Your task to perform on an android device: find which apps use the phone's location Image 0: 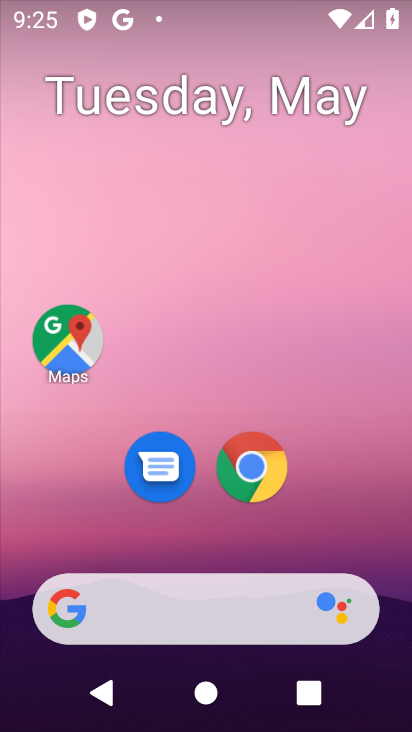
Step 0: drag from (404, 562) to (261, 11)
Your task to perform on an android device: find which apps use the phone's location Image 1: 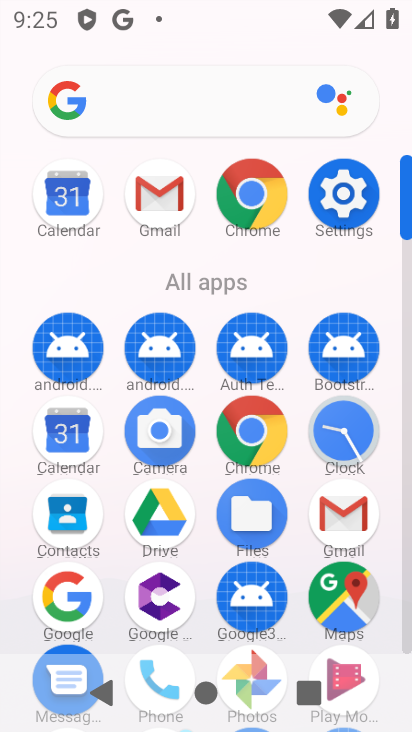
Step 1: drag from (9, 622) to (34, 201)
Your task to perform on an android device: find which apps use the phone's location Image 2: 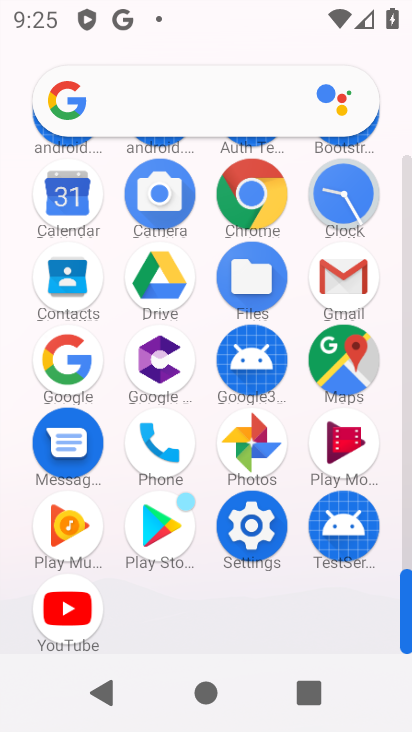
Step 2: click (254, 525)
Your task to perform on an android device: find which apps use the phone's location Image 3: 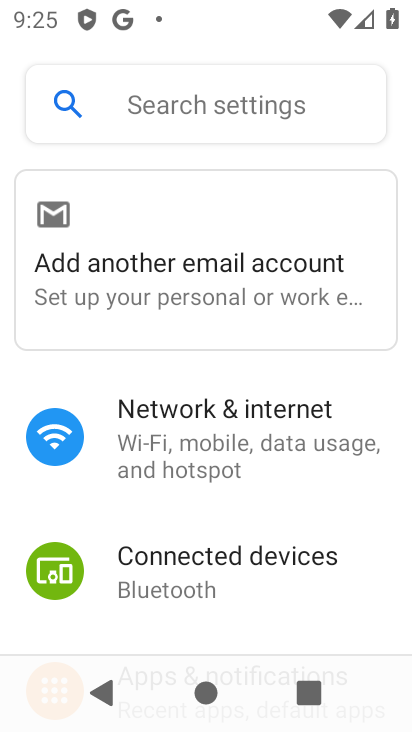
Step 3: drag from (305, 549) to (319, 161)
Your task to perform on an android device: find which apps use the phone's location Image 4: 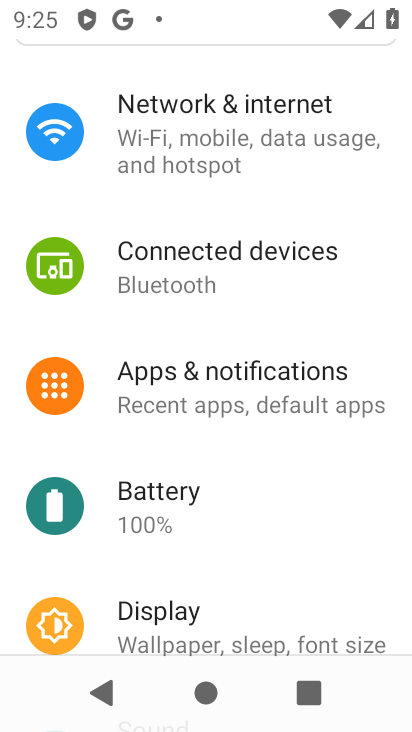
Step 4: drag from (293, 533) to (290, 170)
Your task to perform on an android device: find which apps use the phone's location Image 5: 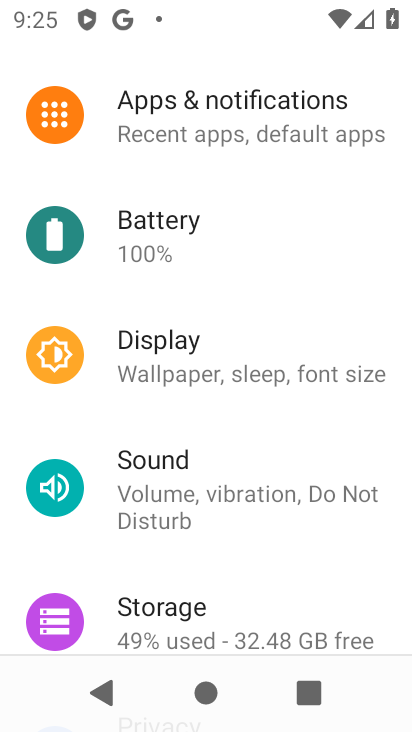
Step 5: drag from (280, 542) to (289, 153)
Your task to perform on an android device: find which apps use the phone's location Image 6: 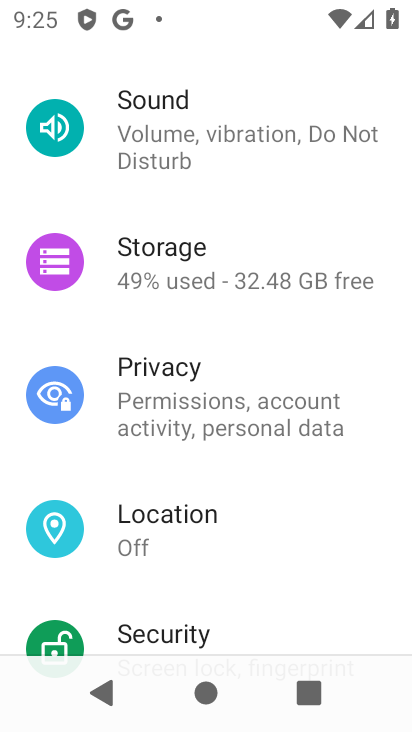
Step 6: drag from (256, 564) to (247, 164)
Your task to perform on an android device: find which apps use the phone's location Image 7: 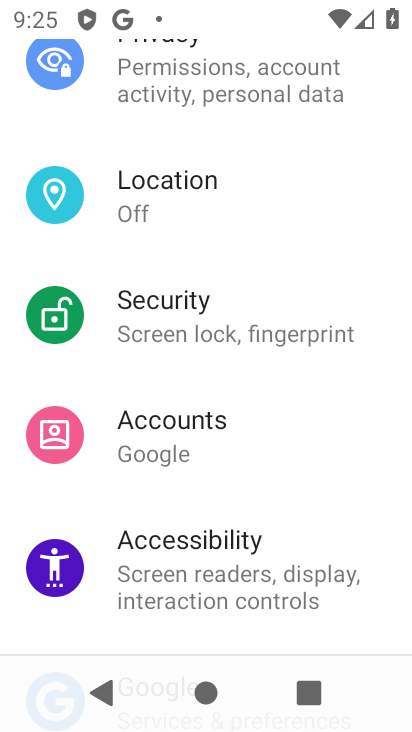
Step 7: drag from (251, 565) to (279, 115)
Your task to perform on an android device: find which apps use the phone's location Image 8: 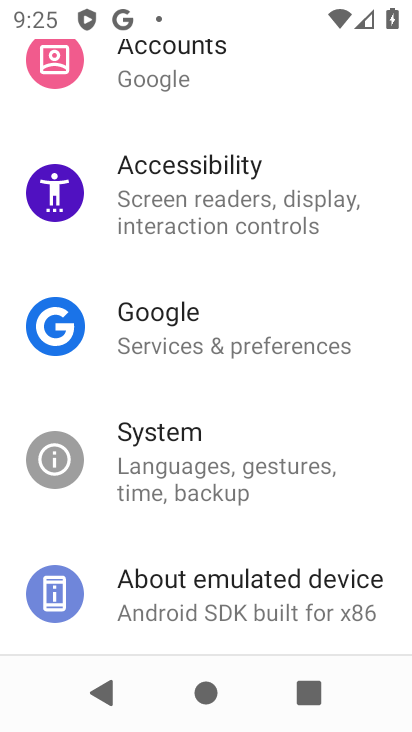
Step 8: drag from (247, 538) to (255, 155)
Your task to perform on an android device: find which apps use the phone's location Image 9: 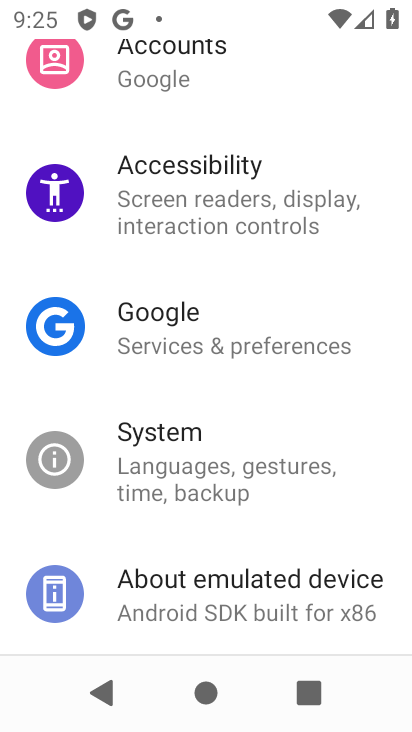
Step 9: drag from (294, 280) to (264, 598)
Your task to perform on an android device: find which apps use the phone's location Image 10: 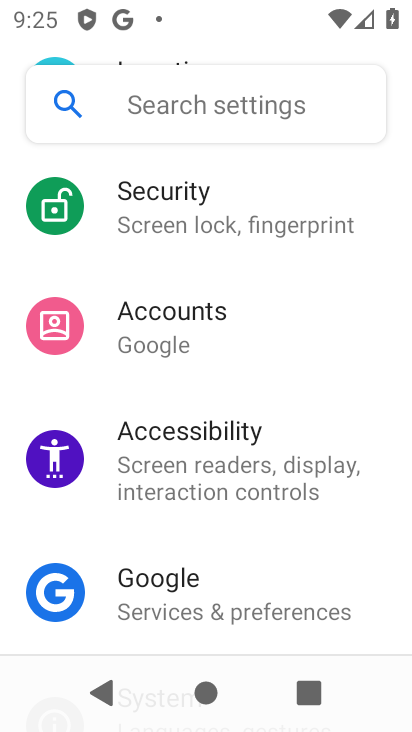
Step 10: drag from (287, 272) to (268, 588)
Your task to perform on an android device: find which apps use the phone's location Image 11: 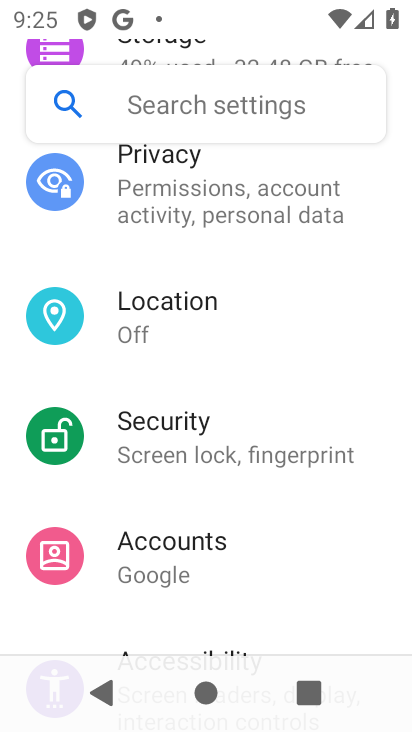
Step 11: drag from (275, 300) to (275, 583)
Your task to perform on an android device: find which apps use the phone's location Image 12: 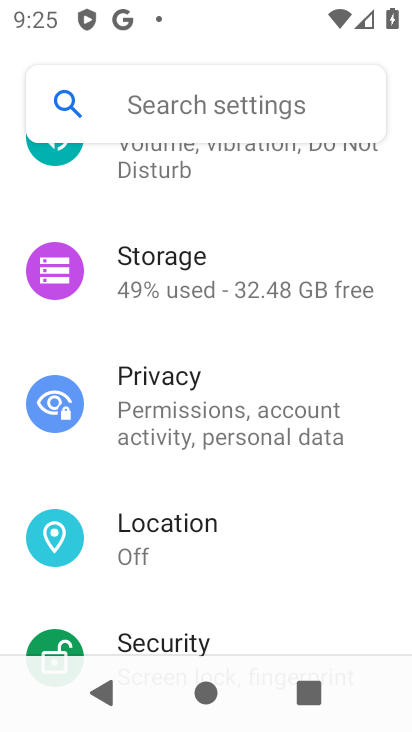
Step 12: drag from (274, 229) to (275, 615)
Your task to perform on an android device: find which apps use the phone's location Image 13: 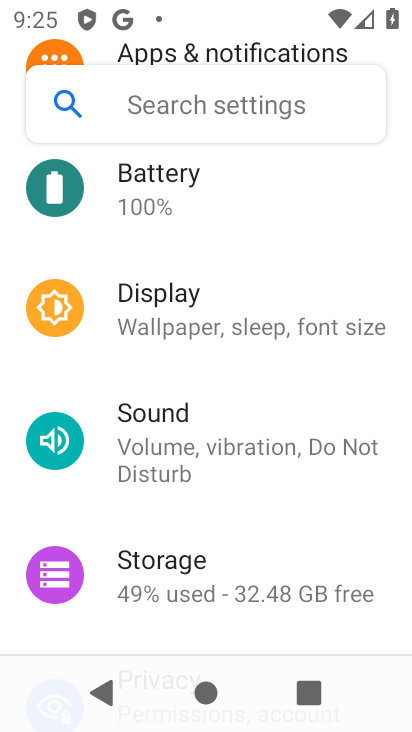
Step 13: drag from (286, 294) to (283, 584)
Your task to perform on an android device: find which apps use the phone's location Image 14: 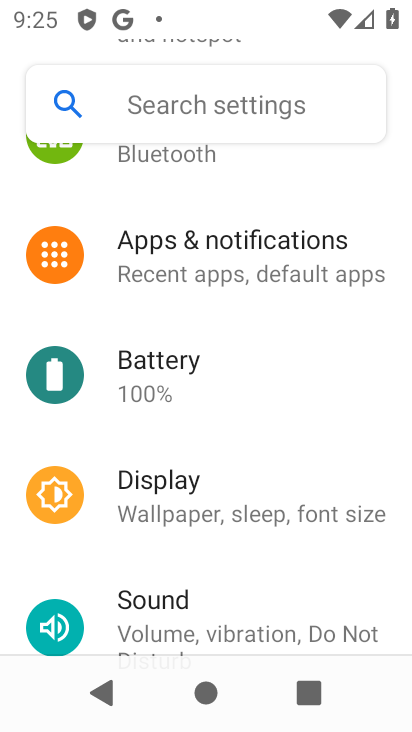
Step 14: drag from (281, 221) to (281, 530)
Your task to perform on an android device: find which apps use the phone's location Image 15: 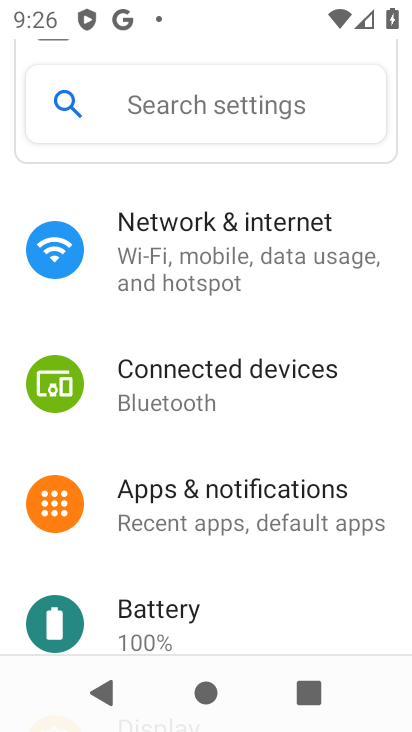
Step 15: drag from (283, 524) to (266, 146)
Your task to perform on an android device: find which apps use the phone's location Image 16: 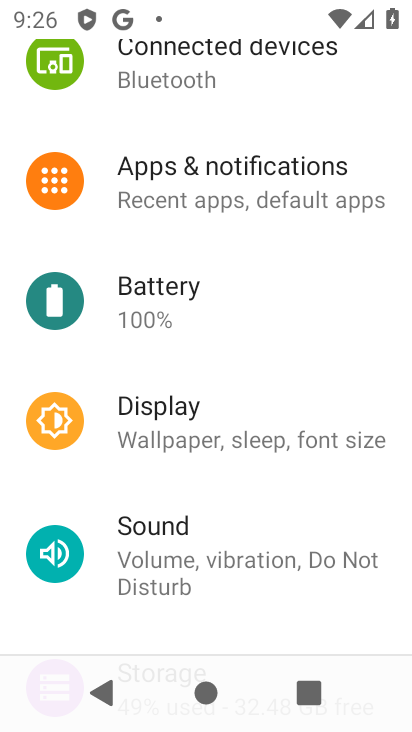
Step 16: drag from (247, 533) to (273, 140)
Your task to perform on an android device: find which apps use the phone's location Image 17: 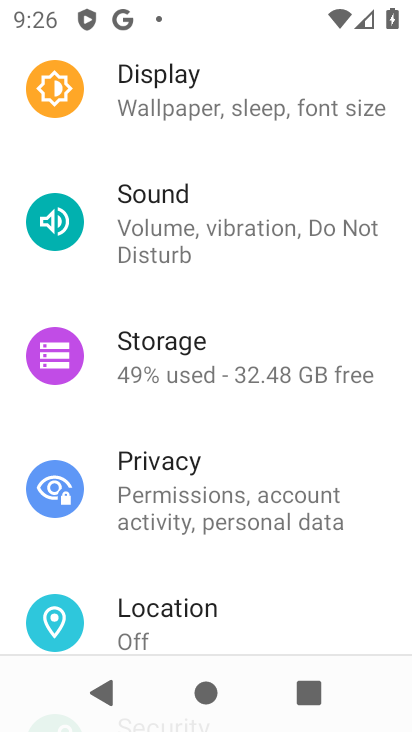
Step 17: click (175, 629)
Your task to perform on an android device: find which apps use the phone's location Image 18: 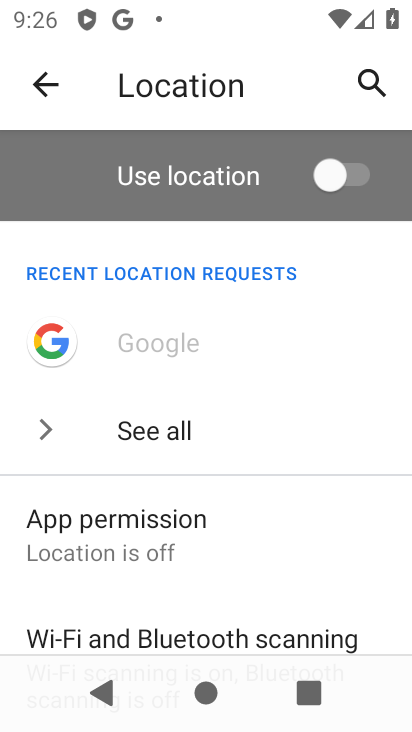
Step 18: drag from (221, 556) to (241, 187)
Your task to perform on an android device: find which apps use the phone's location Image 19: 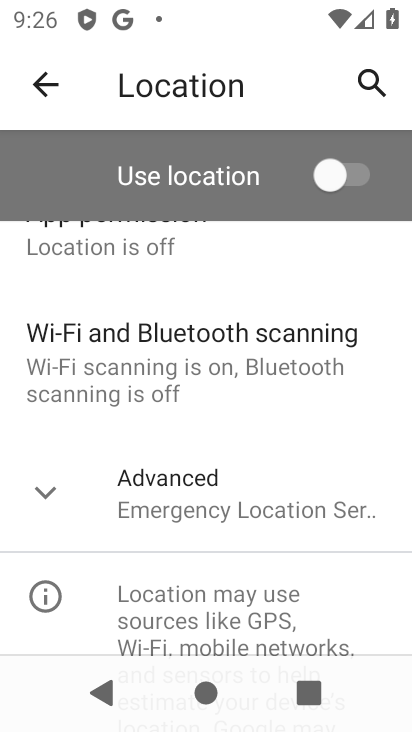
Step 19: click (45, 498)
Your task to perform on an android device: find which apps use the phone's location Image 20: 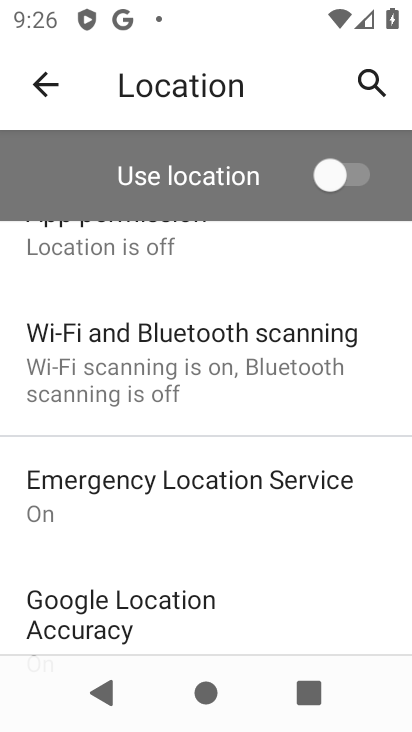
Step 20: drag from (280, 570) to (261, 209)
Your task to perform on an android device: find which apps use the phone's location Image 21: 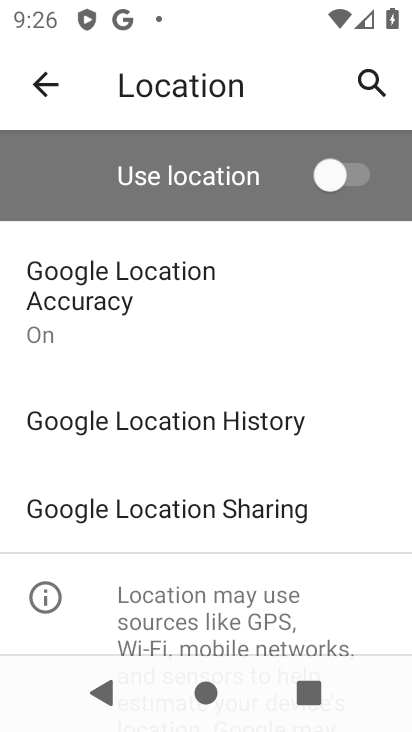
Step 21: drag from (274, 325) to (260, 636)
Your task to perform on an android device: find which apps use the phone's location Image 22: 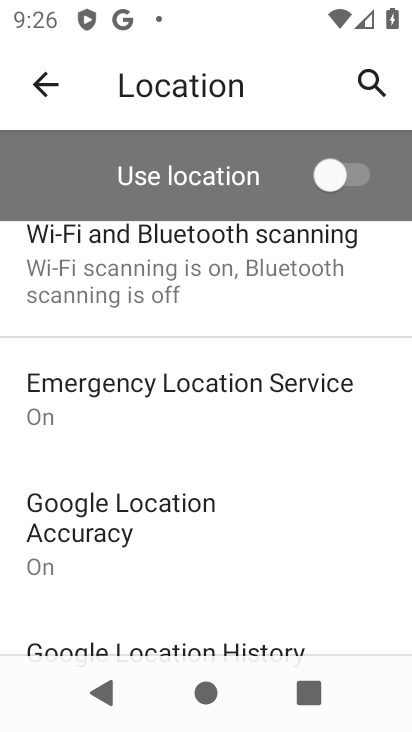
Step 22: drag from (235, 380) to (236, 635)
Your task to perform on an android device: find which apps use the phone's location Image 23: 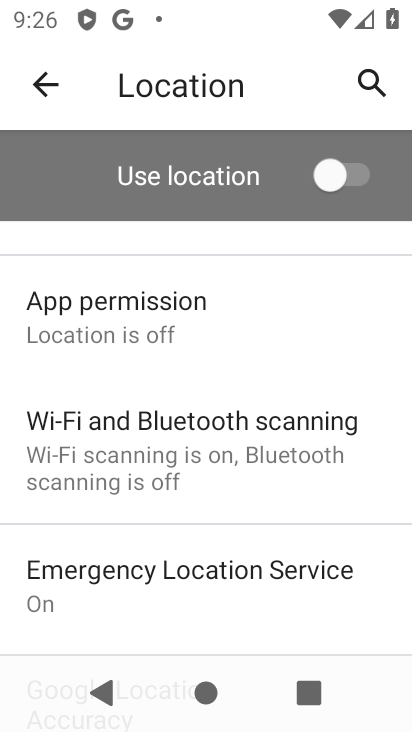
Step 23: click (202, 487)
Your task to perform on an android device: find which apps use the phone's location Image 24: 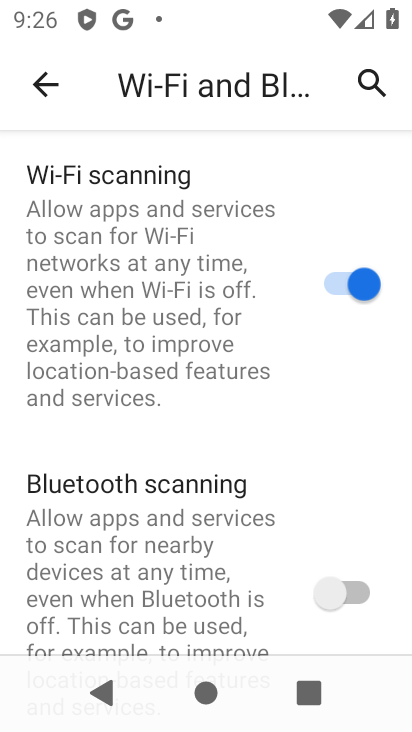
Step 24: click (47, 83)
Your task to perform on an android device: find which apps use the phone's location Image 25: 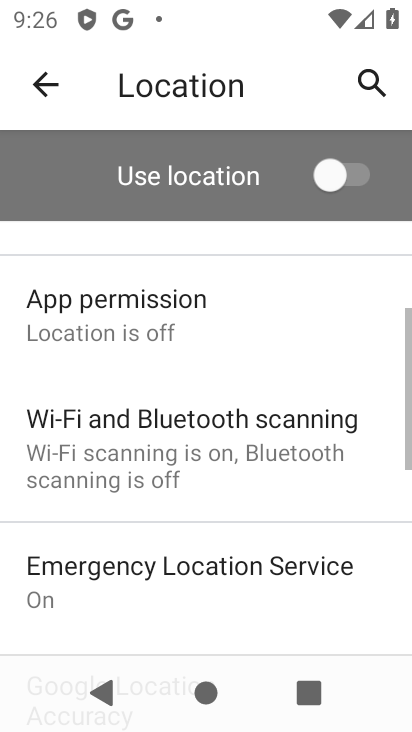
Step 25: drag from (223, 572) to (221, 631)
Your task to perform on an android device: find which apps use the phone's location Image 26: 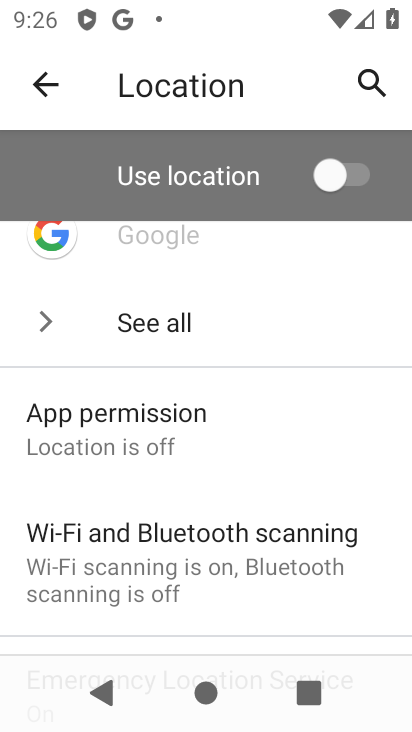
Step 26: click (162, 436)
Your task to perform on an android device: find which apps use the phone's location Image 27: 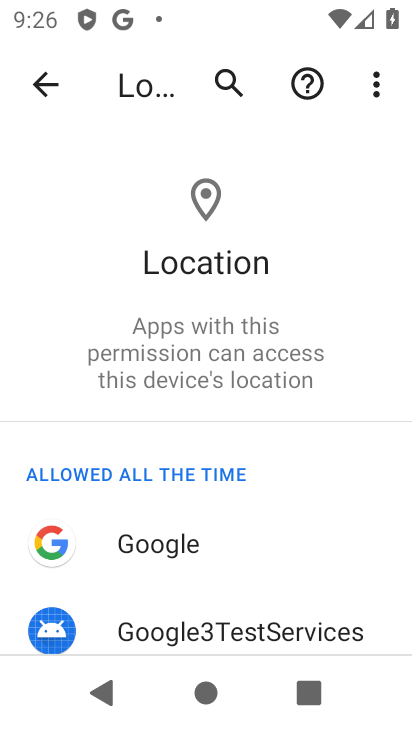
Step 27: task complete